Your task to perform on an android device: turn off notifications in google photos Image 0: 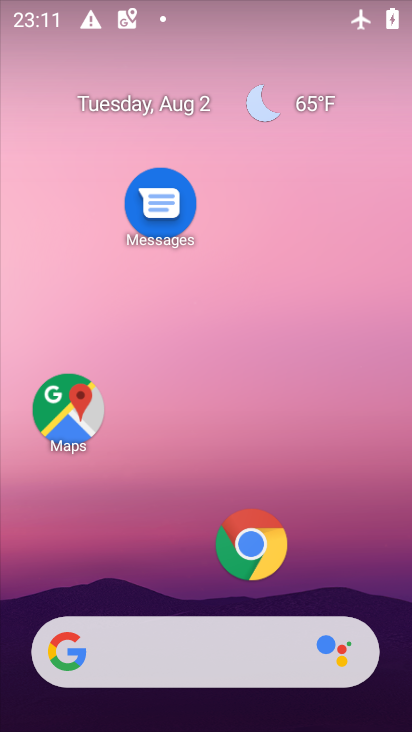
Step 0: drag from (171, 586) to (179, 134)
Your task to perform on an android device: turn off notifications in google photos Image 1: 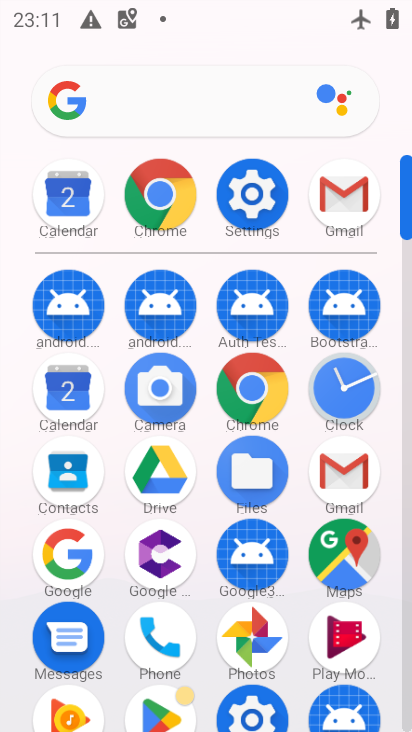
Step 1: click (234, 626)
Your task to perform on an android device: turn off notifications in google photos Image 2: 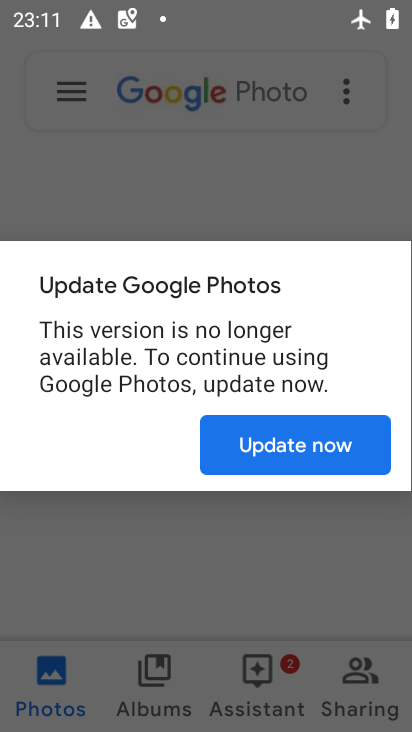
Step 2: click (285, 445)
Your task to perform on an android device: turn off notifications in google photos Image 3: 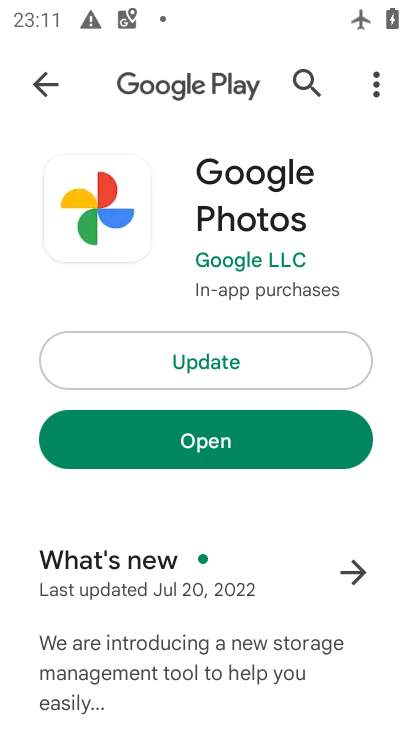
Step 3: click (210, 448)
Your task to perform on an android device: turn off notifications in google photos Image 4: 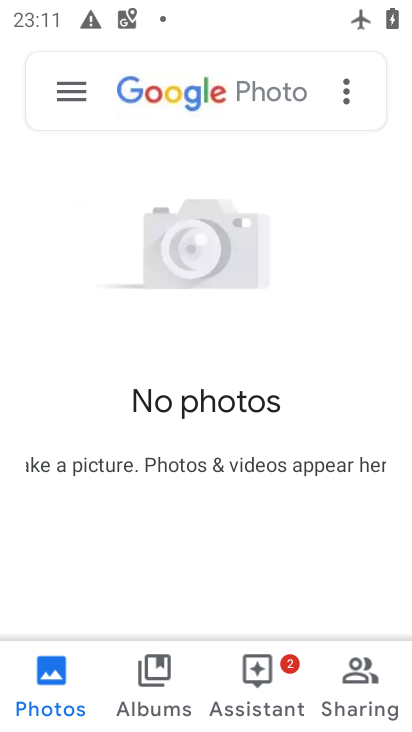
Step 4: click (68, 85)
Your task to perform on an android device: turn off notifications in google photos Image 5: 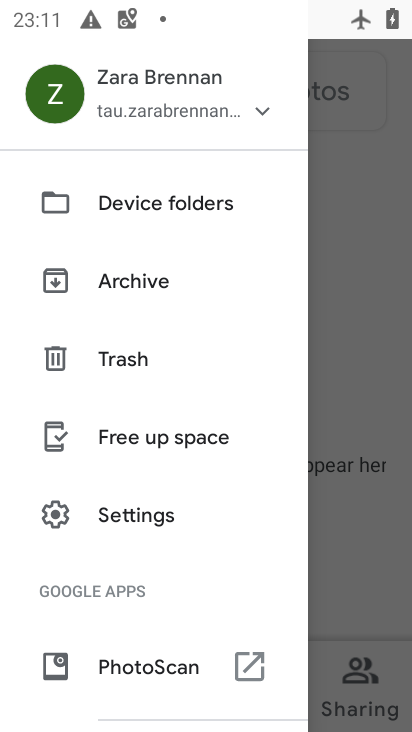
Step 5: click (115, 509)
Your task to perform on an android device: turn off notifications in google photos Image 6: 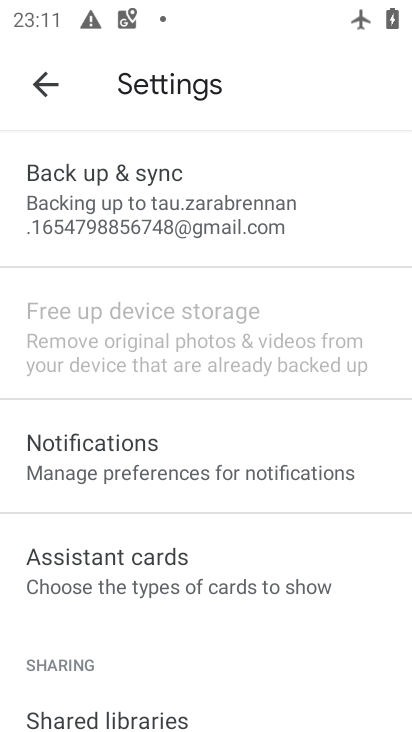
Step 6: click (172, 469)
Your task to perform on an android device: turn off notifications in google photos Image 7: 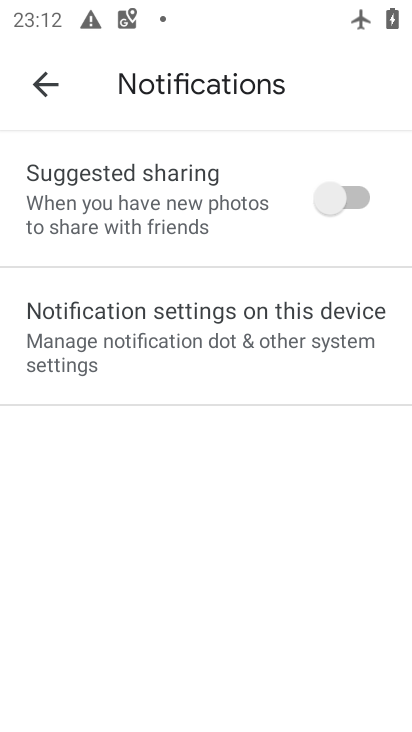
Step 7: click (169, 354)
Your task to perform on an android device: turn off notifications in google photos Image 8: 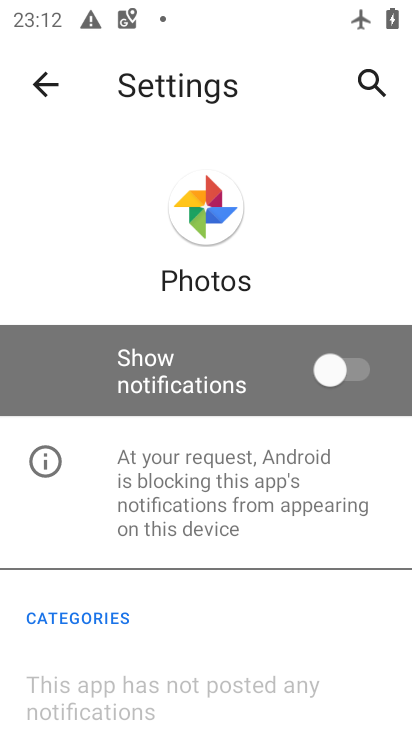
Step 8: task complete